Your task to perform on an android device: Open privacy settings Image 0: 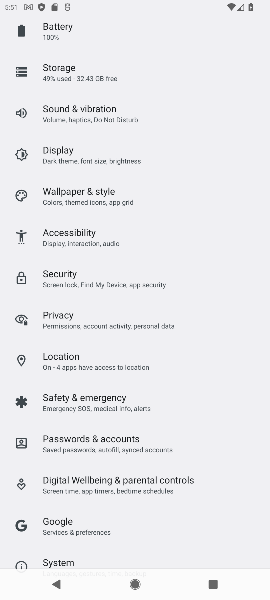
Step 0: press home button
Your task to perform on an android device: Open privacy settings Image 1: 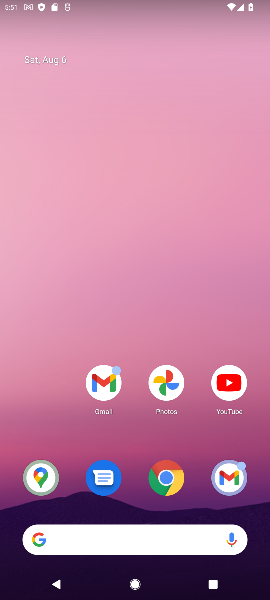
Step 1: drag from (118, 507) to (144, 41)
Your task to perform on an android device: Open privacy settings Image 2: 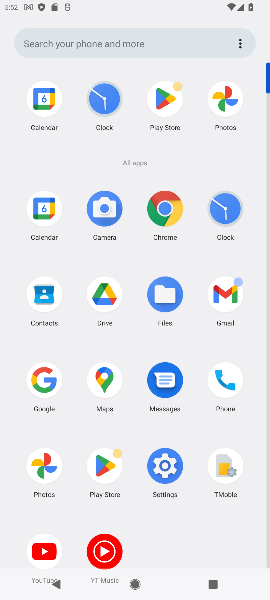
Step 2: click (164, 462)
Your task to perform on an android device: Open privacy settings Image 3: 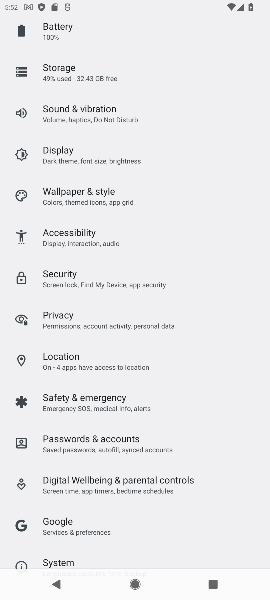
Step 3: click (58, 320)
Your task to perform on an android device: Open privacy settings Image 4: 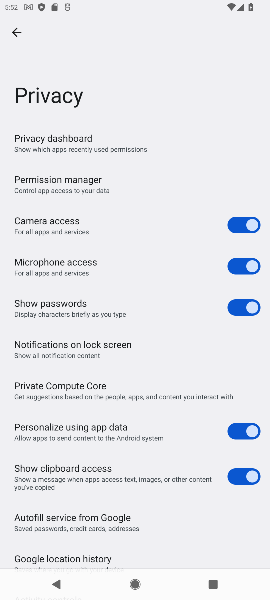
Step 4: task complete